Your task to perform on an android device: Open privacy settings Image 0: 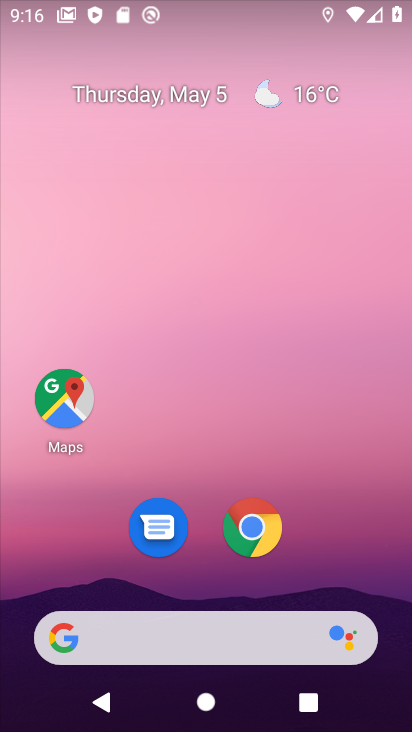
Step 0: click (254, 531)
Your task to perform on an android device: Open privacy settings Image 1: 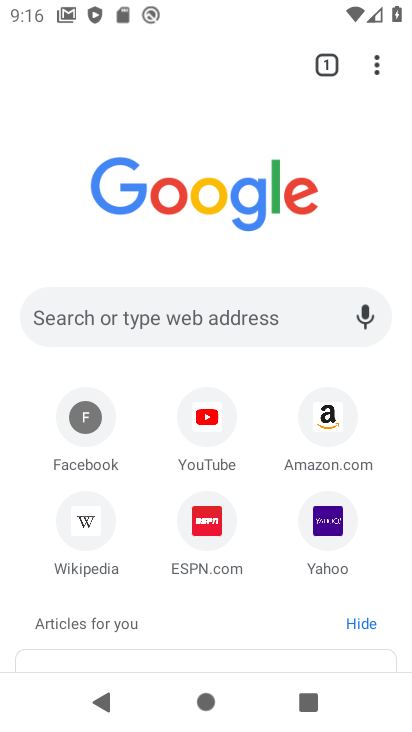
Step 1: drag from (379, 59) to (272, 566)
Your task to perform on an android device: Open privacy settings Image 2: 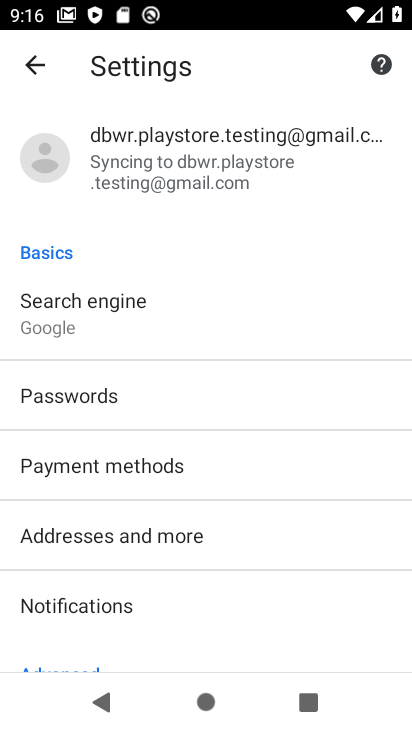
Step 2: drag from (157, 595) to (216, 290)
Your task to perform on an android device: Open privacy settings Image 3: 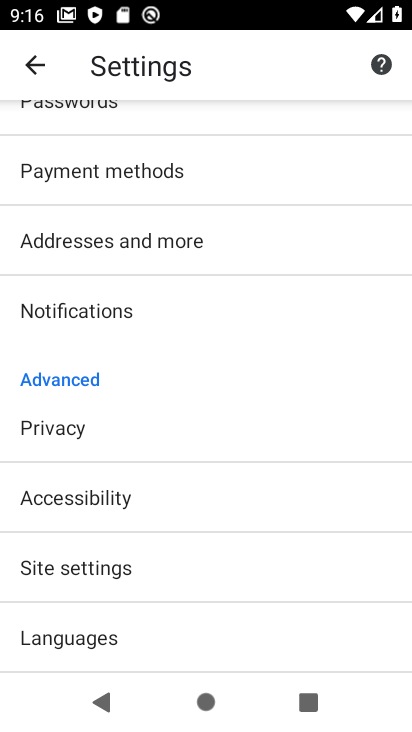
Step 3: click (95, 436)
Your task to perform on an android device: Open privacy settings Image 4: 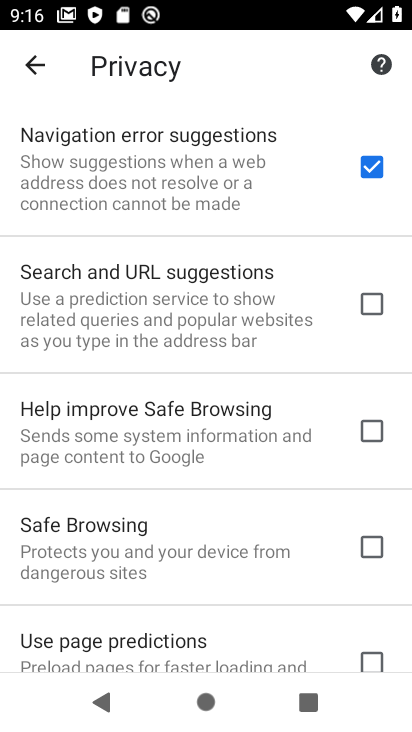
Step 4: task complete